Your task to perform on an android device: Search for seafood restaurants on Google Maps Image 0: 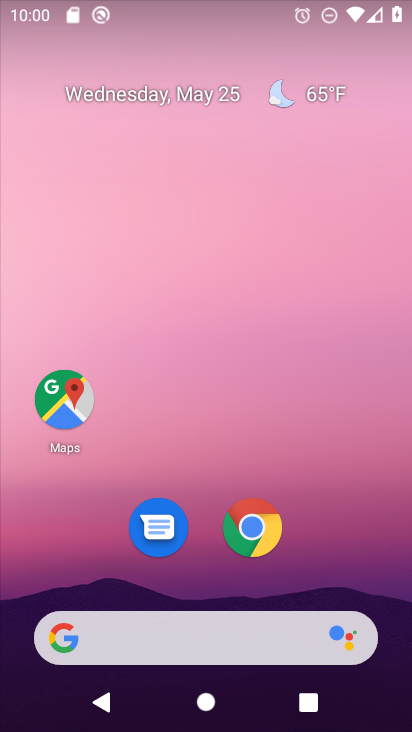
Step 0: click (64, 402)
Your task to perform on an android device: Search for seafood restaurants on Google Maps Image 1: 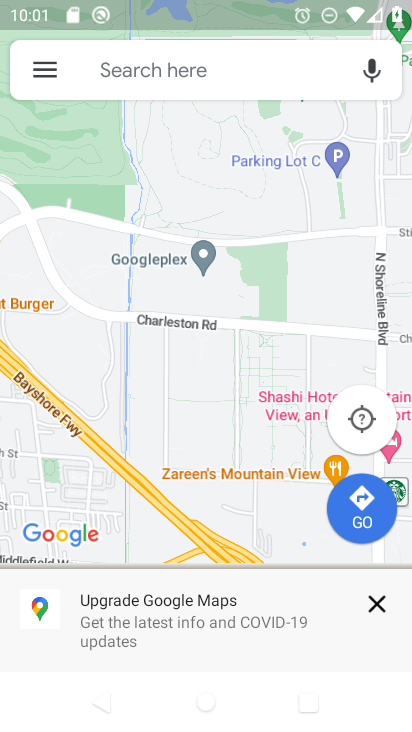
Step 1: click (127, 72)
Your task to perform on an android device: Search for seafood restaurants on Google Maps Image 2: 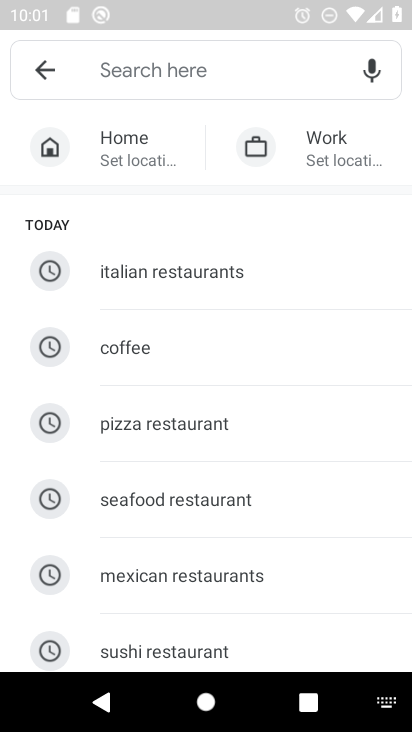
Step 2: type "seafood restaurants"
Your task to perform on an android device: Search for seafood restaurants on Google Maps Image 3: 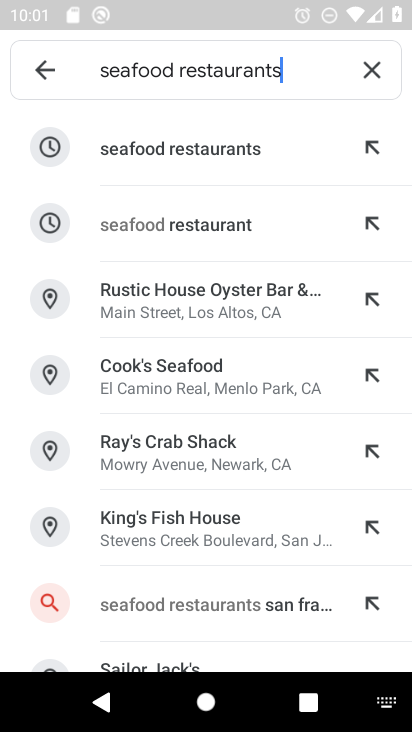
Step 3: click (232, 151)
Your task to perform on an android device: Search for seafood restaurants on Google Maps Image 4: 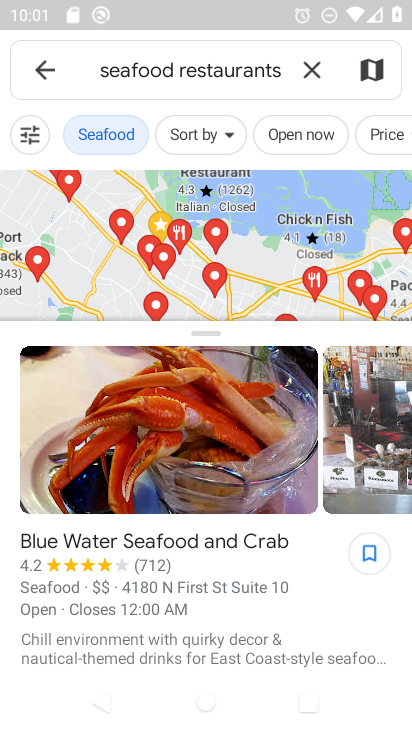
Step 4: task complete